Your task to perform on an android device: turn off smart reply in the gmail app Image 0: 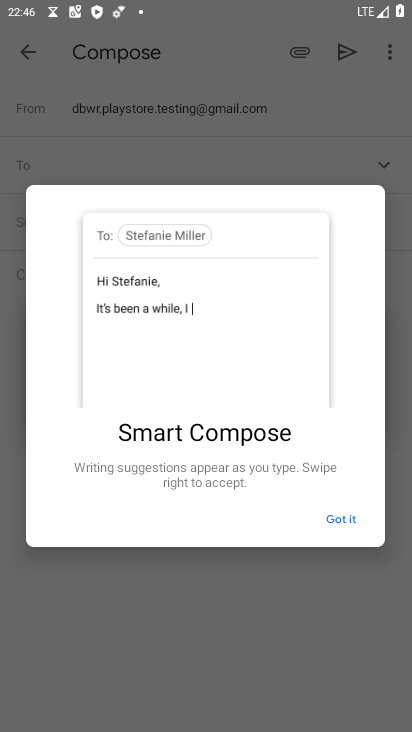
Step 0: press home button
Your task to perform on an android device: turn off smart reply in the gmail app Image 1: 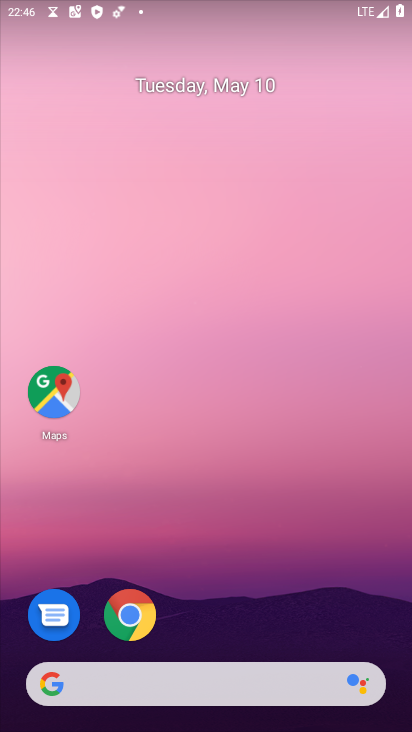
Step 1: drag from (234, 605) to (182, 40)
Your task to perform on an android device: turn off smart reply in the gmail app Image 2: 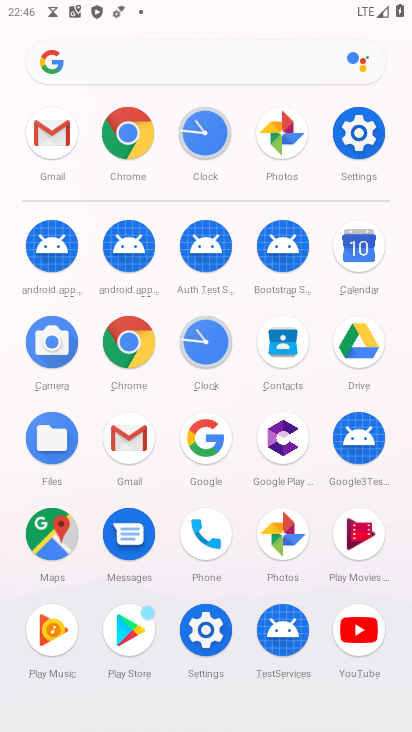
Step 2: click (49, 134)
Your task to perform on an android device: turn off smart reply in the gmail app Image 3: 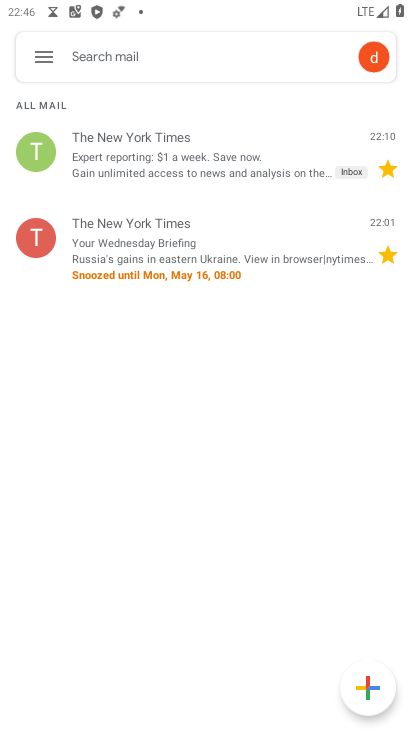
Step 3: click (41, 62)
Your task to perform on an android device: turn off smart reply in the gmail app Image 4: 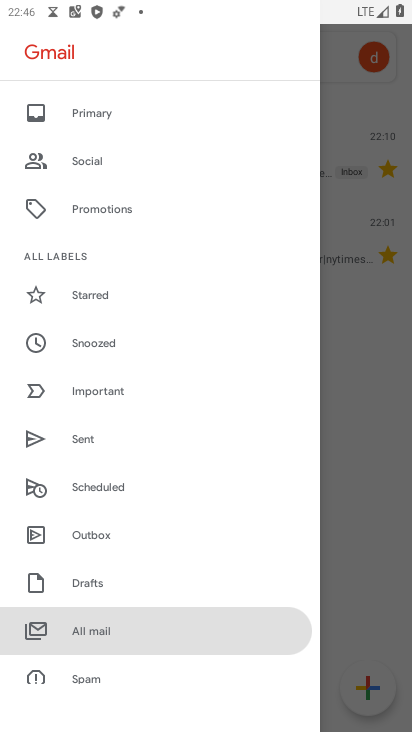
Step 4: drag from (148, 548) to (162, 404)
Your task to perform on an android device: turn off smart reply in the gmail app Image 5: 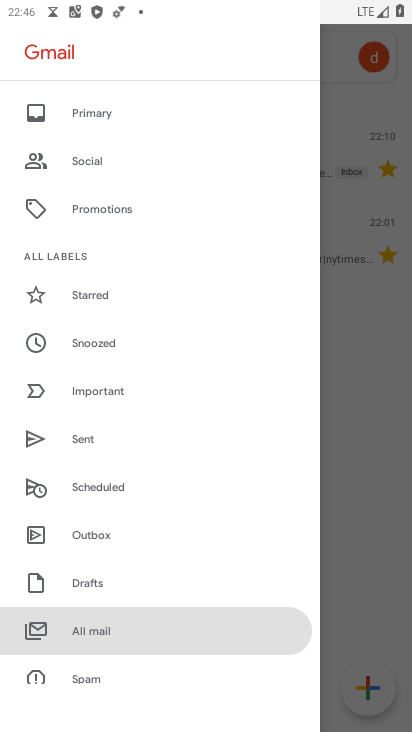
Step 5: drag from (157, 573) to (198, 456)
Your task to perform on an android device: turn off smart reply in the gmail app Image 6: 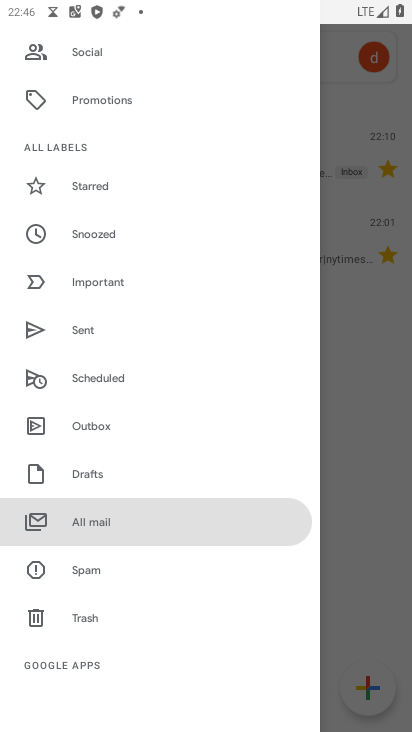
Step 6: drag from (134, 596) to (198, 429)
Your task to perform on an android device: turn off smart reply in the gmail app Image 7: 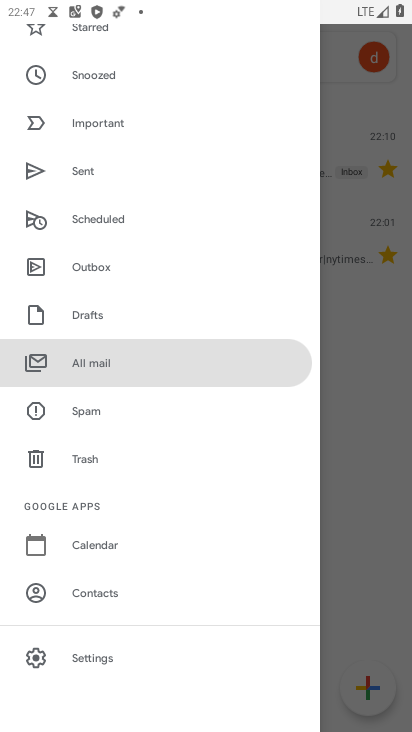
Step 7: click (100, 654)
Your task to perform on an android device: turn off smart reply in the gmail app Image 8: 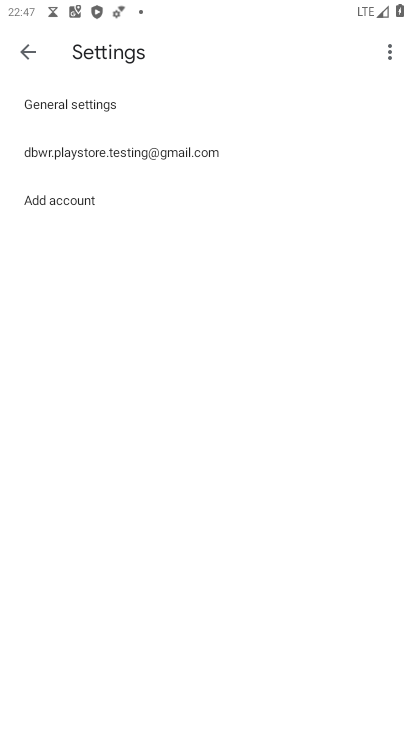
Step 8: click (148, 151)
Your task to perform on an android device: turn off smart reply in the gmail app Image 9: 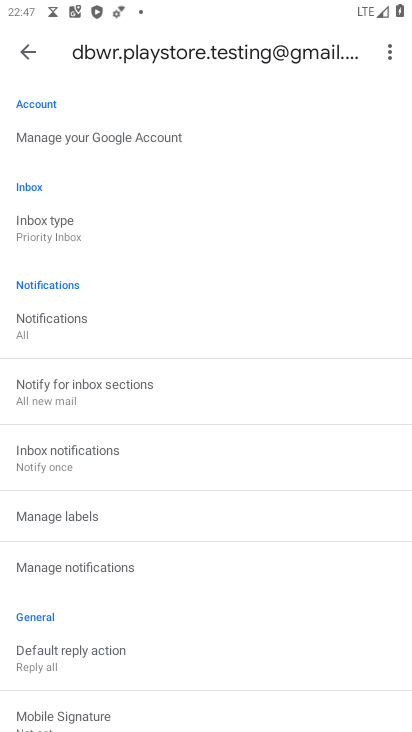
Step 9: drag from (125, 591) to (180, 470)
Your task to perform on an android device: turn off smart reply in the gmail app Image 10: 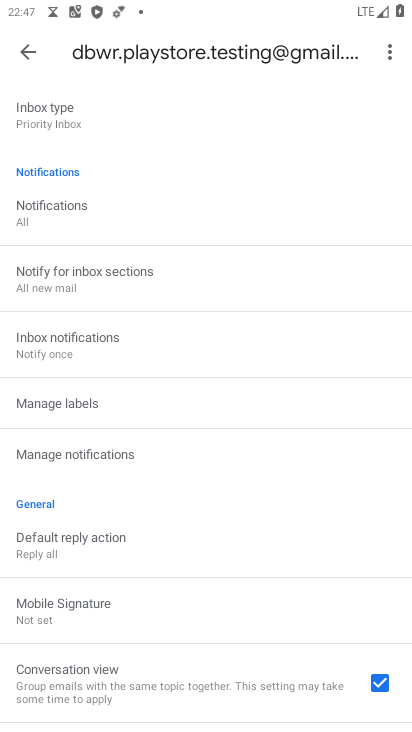
Step 10: drag from (153, 617) to (162, 530)
Your task to perform on an android device: turn off smart reply in the gmail app Image 11: 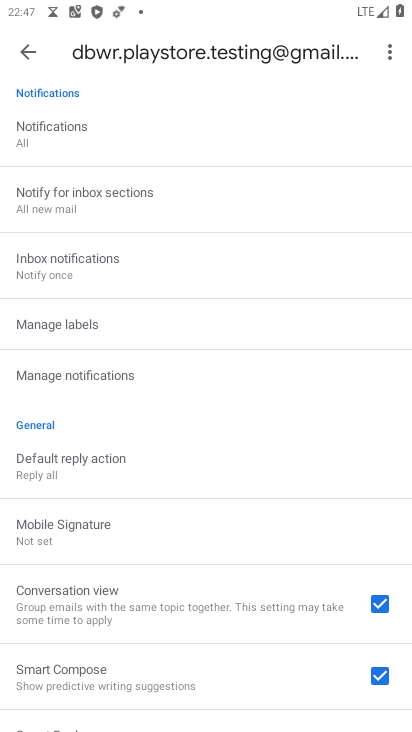
Step 11: drag from (136, 662) to (182, 534)
Your task to perform on an android device: turn off smart reply in the gmail app Image 12: 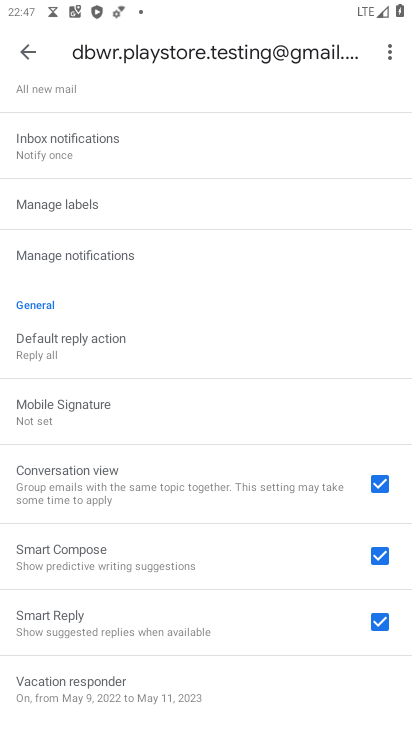
Step 12: click (374, 623)
Your task to perform on an android device: turn off smart reply in the gmail app Image 13: 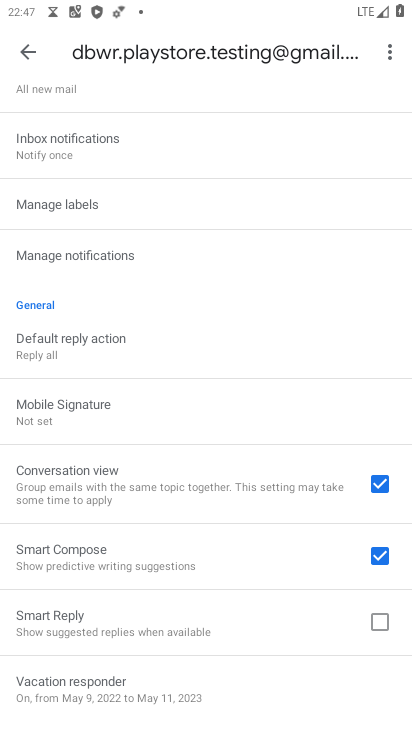
Step 13: task complete